Your task to perform on an android device: turn on javascript in the chrome app Image 0: 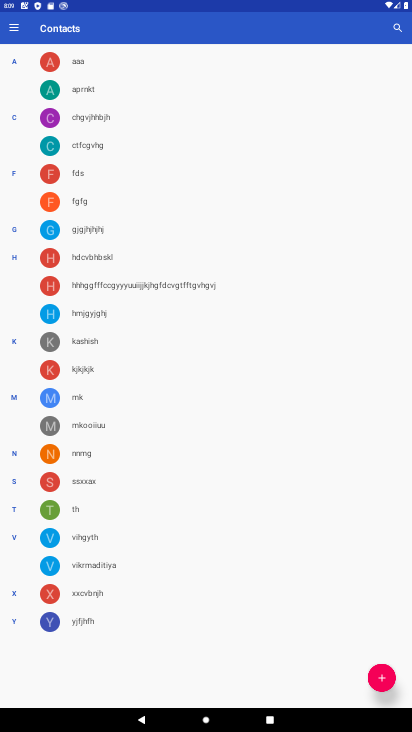
Step 0: press home button
Your task to perform on an android device: turn on javascript in the chrome app Image 1: 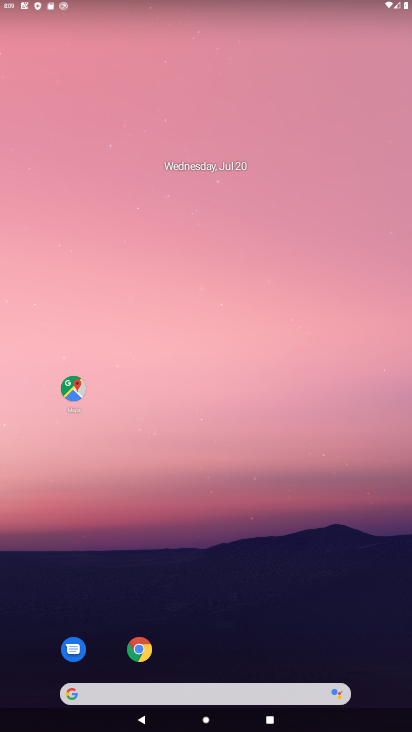
Step 1: drag from (305, 683) to (323, 41)
Your task to perform on an android device: turn on javascript in the chrome app Image 2: 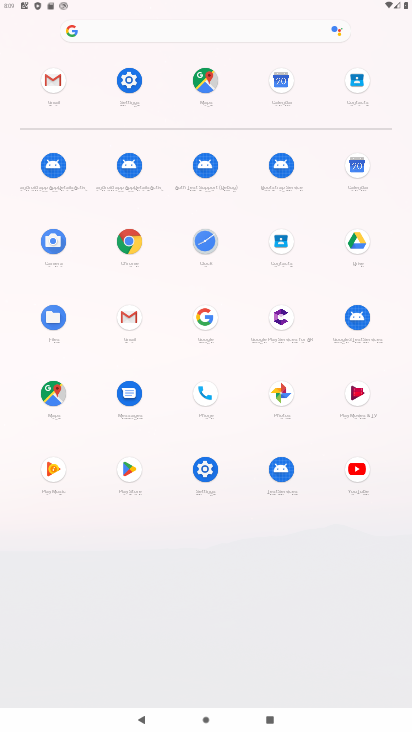
Step 2: click (130, 79)
Your task to perform on an android device: turn on javascript in the chrome app Image 3: 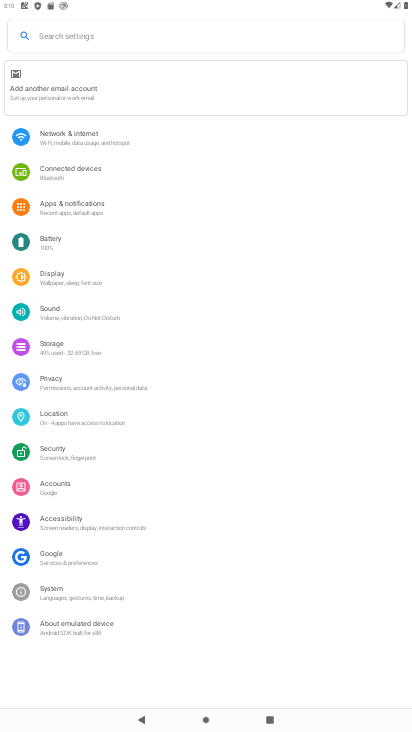
Step 3: task complete